Your task to perform on an android device: toggle priority inbox in the gmail app Image 0: 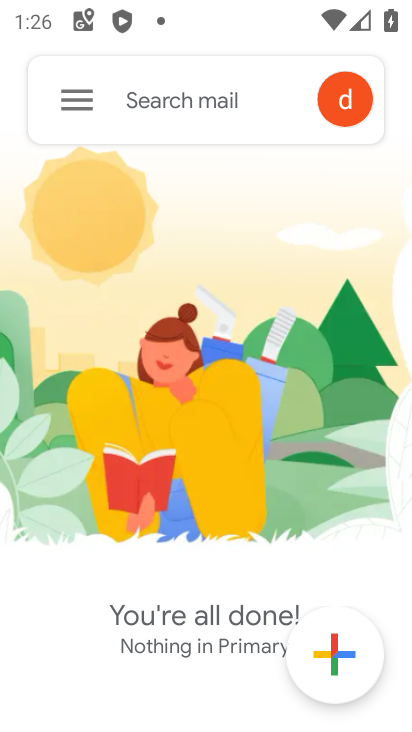
Step 0: press home button
Your task to perform on an android device: toggle priority inbox in the gmail app Image 1: 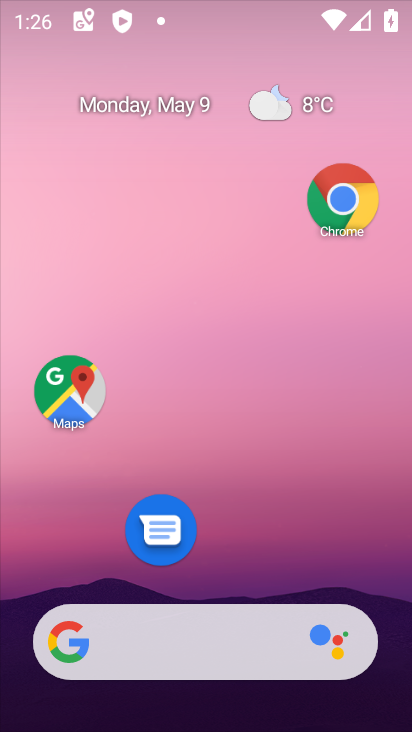
Step 1: drag from (249, 544) to (287, 62)
Your task to perform on an android device: toggle priority inbox in the gmail app Image 2: 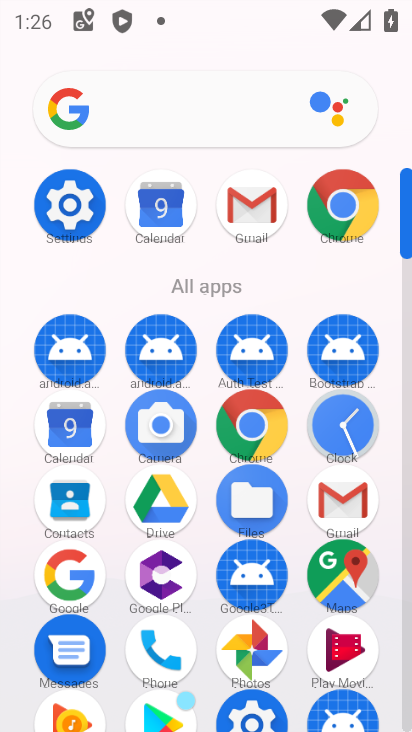
Step 2: click (249, 209)
Your task to perform on an android device: toggle priority inbox in the gmail app Image 3: 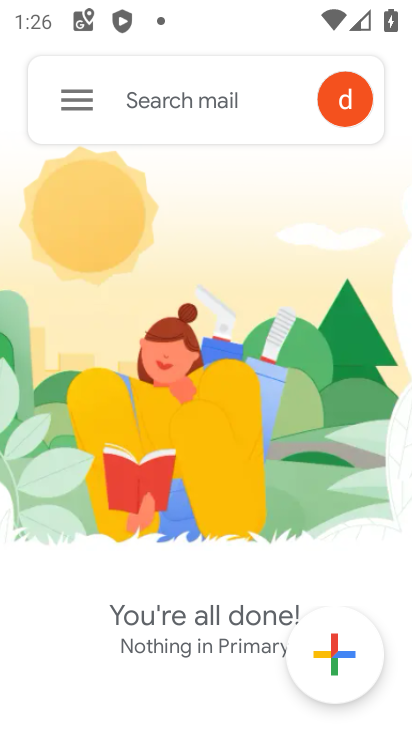
Step 3: click (72, 96)
Your task to perform on an android device: toggle priority inbox in the gmail app Image 4: 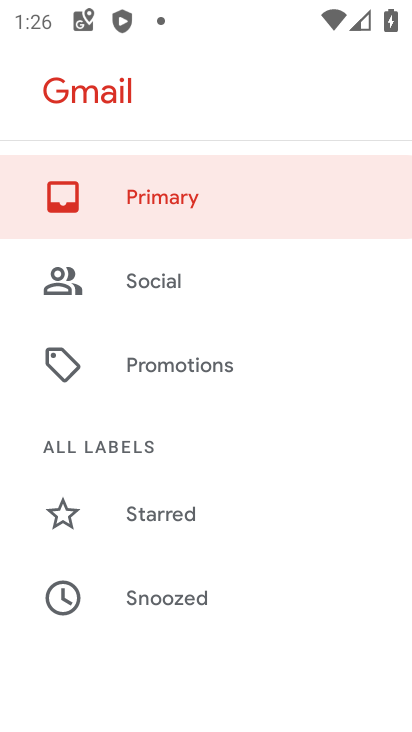
Step 4: drag from (200, 542) to (234, 36)
Your task to perform on an android device: toggle priority inbox in the gmail app Image 5: 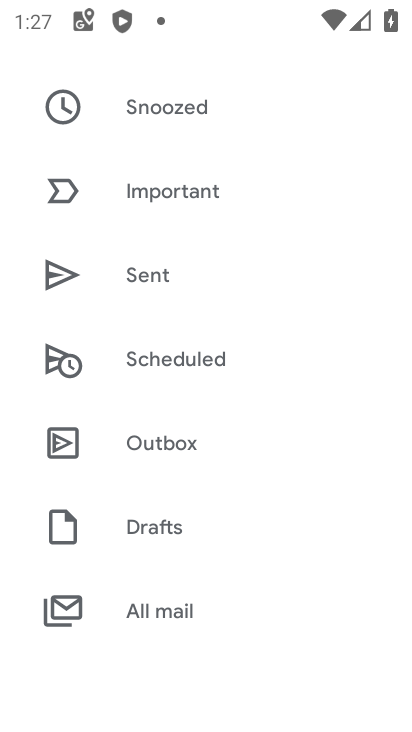
Step 5: drag from (206, 559) to (209, 86)
Your task to perform on an android device: toggle priority inbox in the gmail app Image 6: 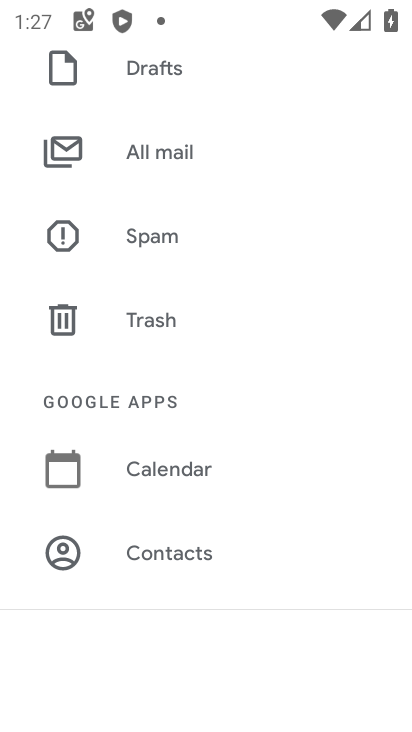
Step 6: drag from (146, 569) to (167, 229)
Your task to perform on an android device: toggle priority inbox in the gmail app Image 7: 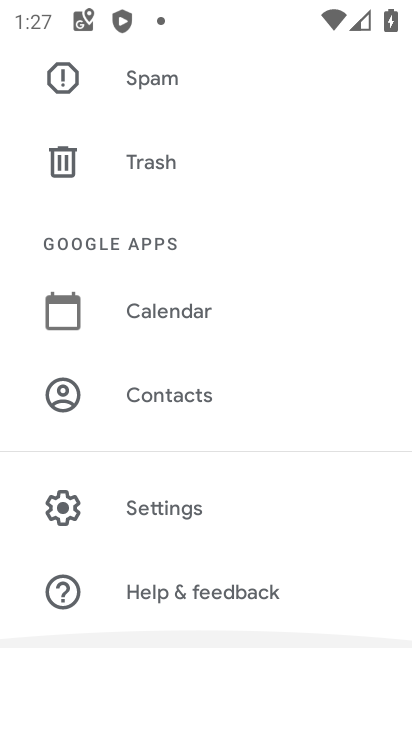
Step 7: click (174, 502)
Your task to perform on an android device: toggle priority inbox in the gmail app Image 8: 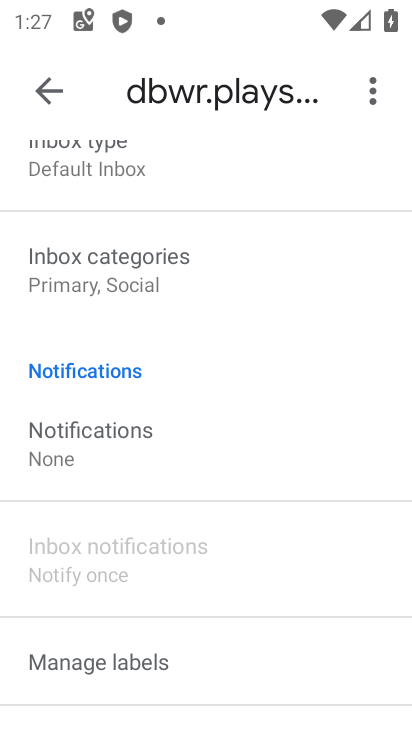
Step 8: click (93, 163)
Your task to perform on an android device: toggle priority inbox in the gmail app Image 9: 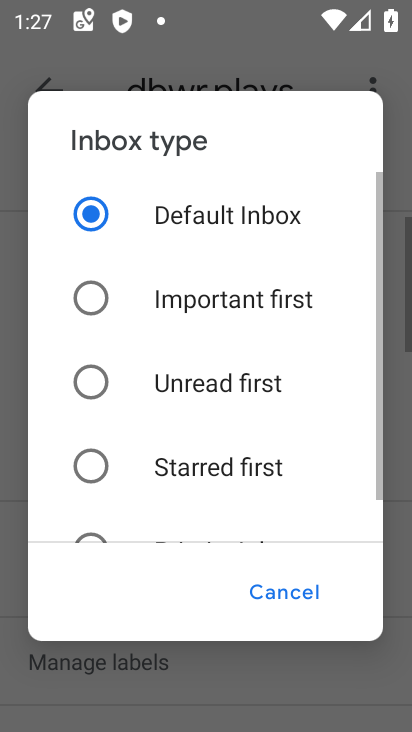
Step 9: drag from (123, 433) to (144, 150)
Your task to perform on an android device: toggle priority inbox in the gmail app Image 10: 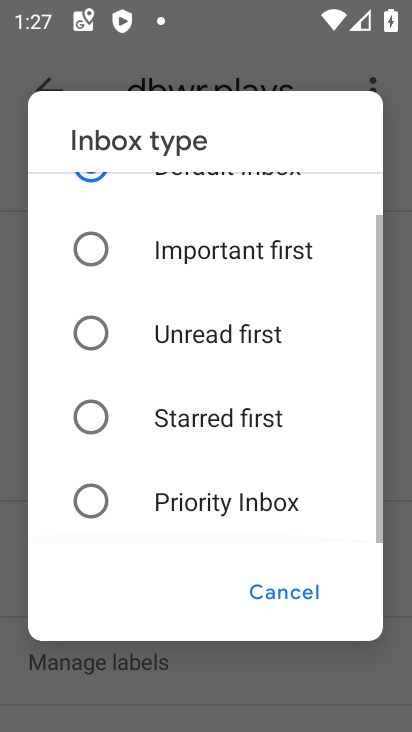
Step 10: click (95, 498)
Your task to perform on an android device: toggle priority inbox in the gmail app Image 11: 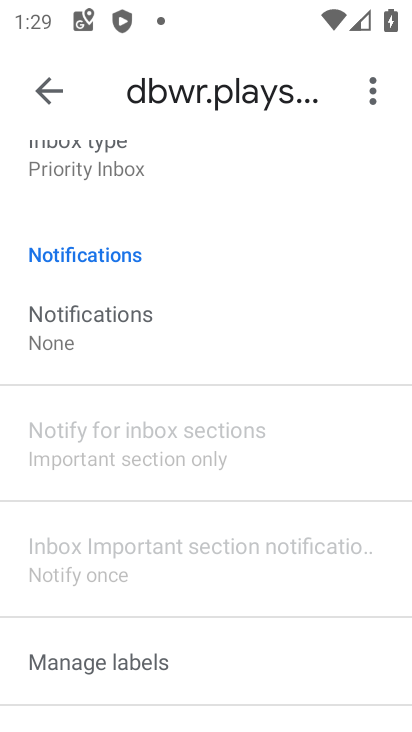
Step 11: task complete